Your task to perform on an android device: Search for flights from Mexico city to Seattle Image 0: 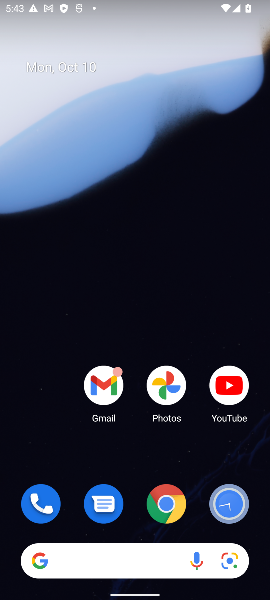
Step 0: drag from (148, 429) to (137, 19)
Your task to perform on an android device: Search for flights from Mexico city to Seattle Image 1: 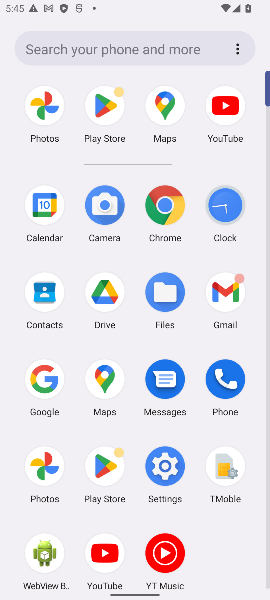
Step 1: click (175, 214)
Your task to perform on an android device: Search for flights from Mexico city to Seattle Image 2: 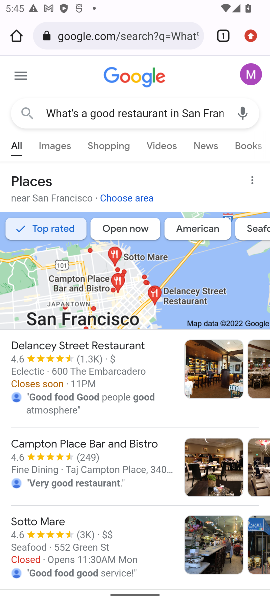
Step 2: click (164, 42)
Your task to perform on an android device: Search for flights from Mexico city to Seattle Image 3: 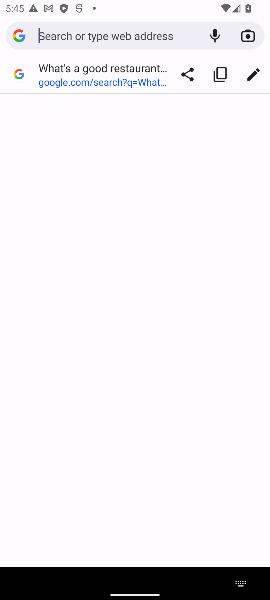
Step 3: type "Search for flights from Mexico city to Seattle"
Your task to perform on an android device: Search for flights from Mexico city to Seattle Image 4: 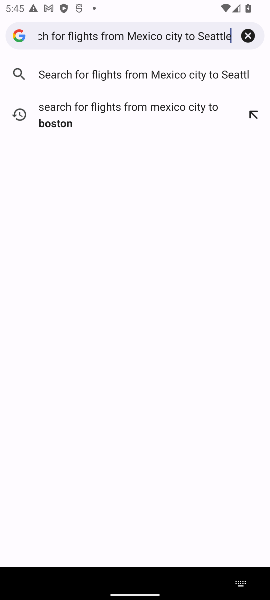
Step 4: press enter
Your task to perform on an android device: Search for flights from Mexico city to Seattle Image 5: 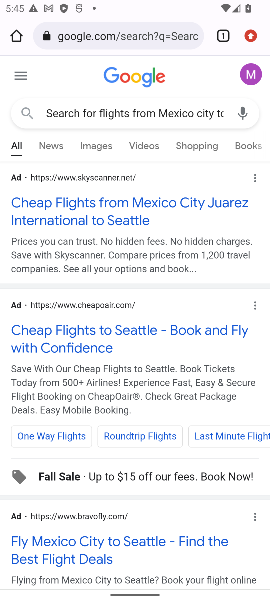
Step 5: click (146, 214)
Your task to perform on an android device: Search for flights from Mexico city to Seattle Image 6: 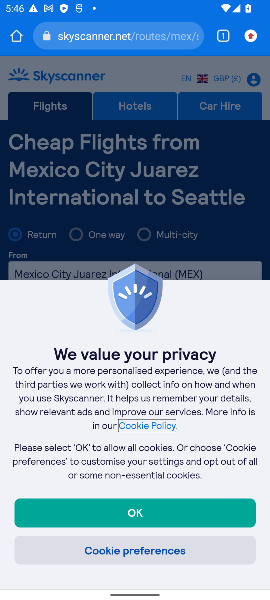
Step 6: task complete